Your task to perform on an android device: Clear the shopping cart on walmart. Add "razer deathadder" to the cart on walmart Image 0: 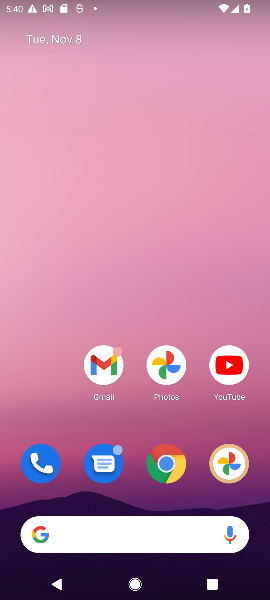
Step 0: click (162, 455)
Your task to perform on an android device: Clear the shopping cart on walmart. Add "razer deathadder" to the cart on walmart Image 1: 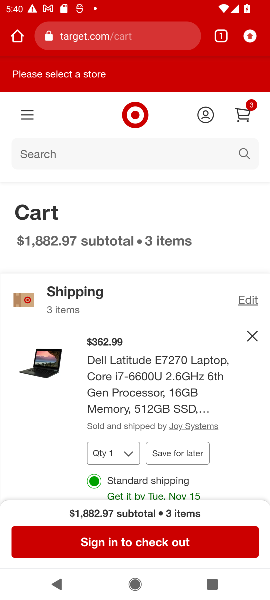
Step 1: click (139, 45)
Your task to perform on an android device: Clear the shopping cart on walmart. Add "razer deathadder" to the cart on walmart Image 2: 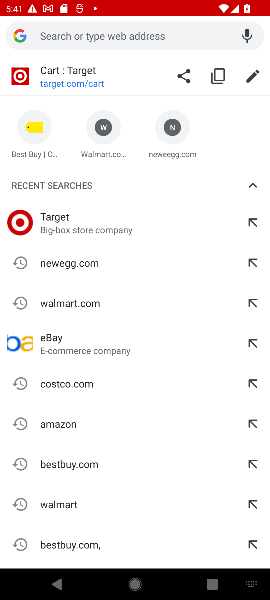
Step 2: click (70, 306)
Your task to perform on an android device: Clear the shopping cart on walmart. Add "razer deathadder" to the cart on walmart Image 3: 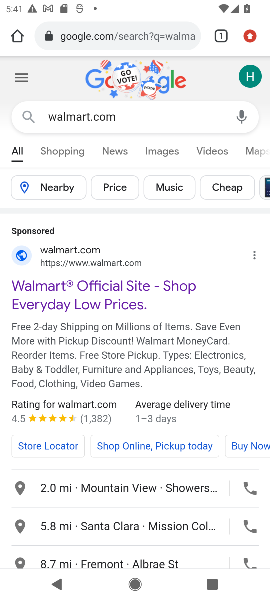
Step 3: click (103, 286)
Your task to perform on an android device: Clear the shopping cart on walmart. Add "razer deathadder" to the cart on walmart Image 4: 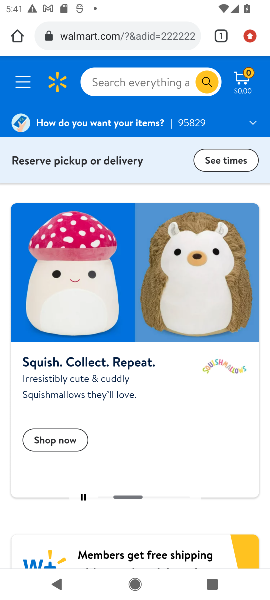
Step 4: click (245, 84)
Your task to perform on an android device: Clear the shopping cart on walmart. Add "razer deathadder" to the cart on walmart Image 5: 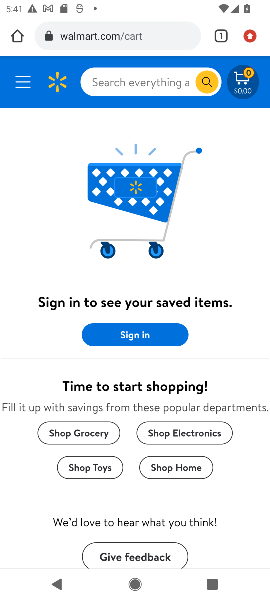
Step 5: click (124, 84)
Your task to perform on an android device: Clear the shopping cart on walmart. Add "razer deathadder" to the cart on walmart Image 6: 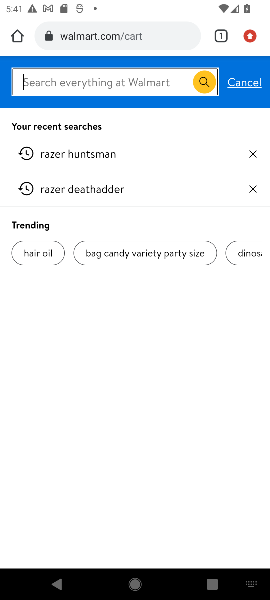
Step 6: type "razer deathadder"
Your task to perform on an android device: Clear the shopping cart on walmart. Add "razer deathadder" to the cart on walmart Image 7: 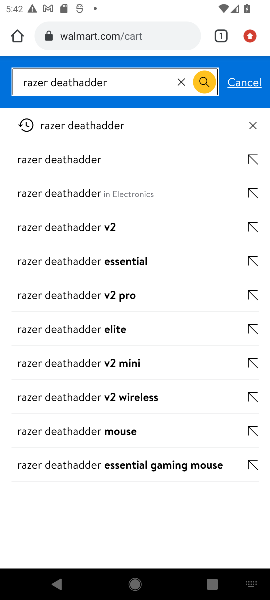
Step 7: click (207, 87)
Your task to perform on an android device: Clear the shopping cart on walmart. Add "razer deathadder" to the cart on walmart Image 8: 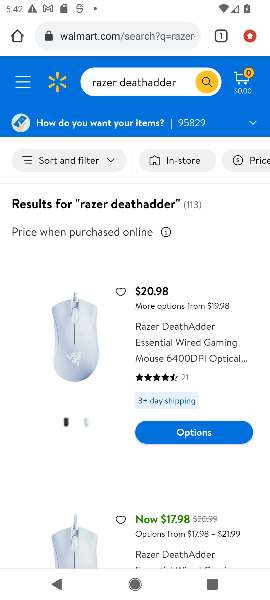
Step 8: click (212, 436)
Your task to perform on an android device: Clear the shopping cart on walmart. Add "razer deathadder" to the cart on walmart Image 9: 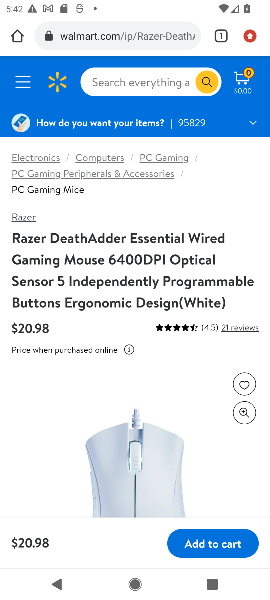
Step 9: click (211, 550)
Your task to perform on an android device: Clear the shopping cart on walmart. Add "razer deathadder" to the cart on walmart Image 10: 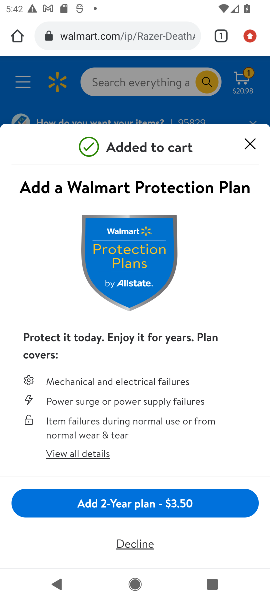
Step 10: task complete